Your task to perform on an android device: turn on the 24-hour format for clock Image 0: 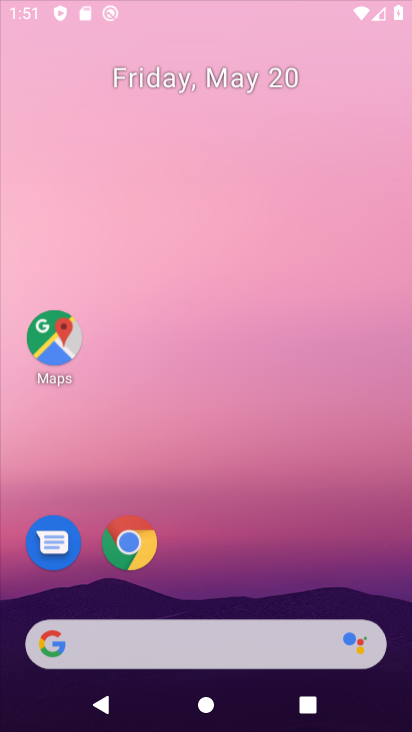
Step 0: click (333, 67)
Your task to perform on an android device: turn on the 24-hour format for clock Image 1: 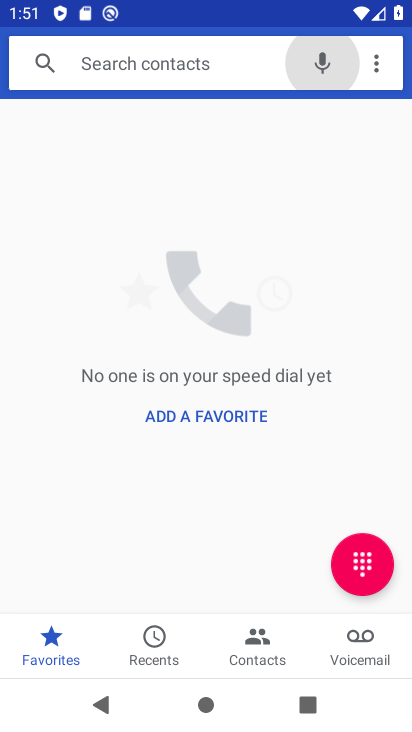
Step 1: click (147, 500)
Your task to perform on an android device: turn on the 24-hour format for clock Image 2: 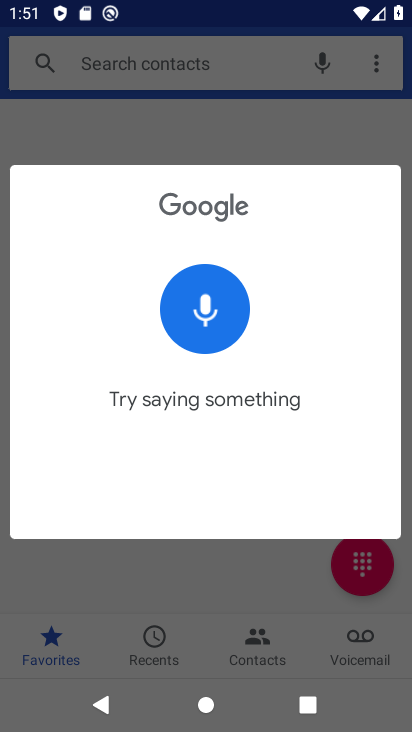
Step 2: press back button
Your task to perform on an android device: turn on the 24-hour format for clock Image 3: 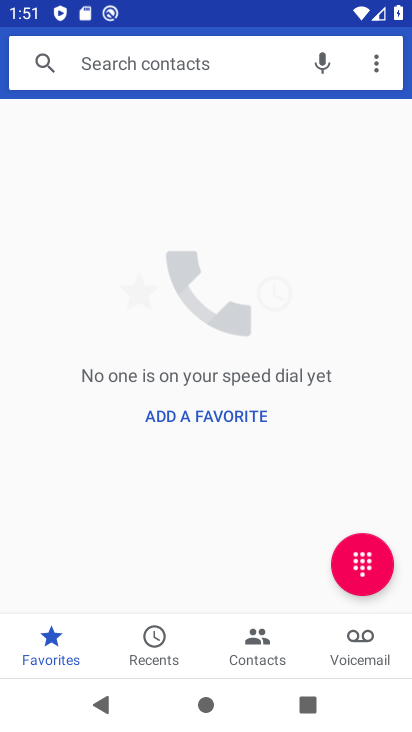
Step 3: press home button
Your task to perform on an android device: turn on the 24-hour format for clock Image 4: 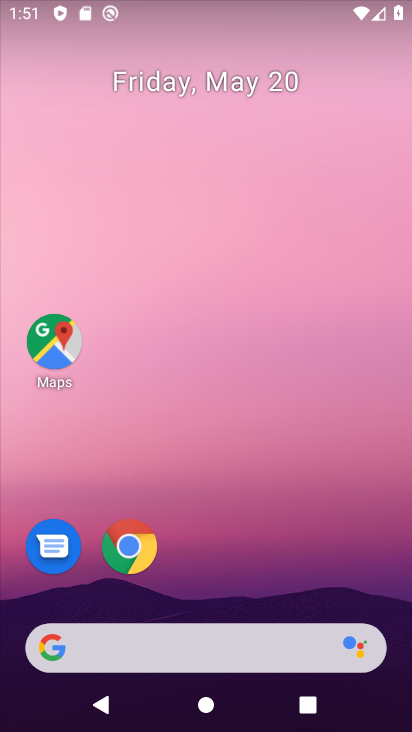
Step 4: drag from (187, 620) to (155, 98)
Your task to perform on an android device: turn on the 24-hour format for clock Image 5: 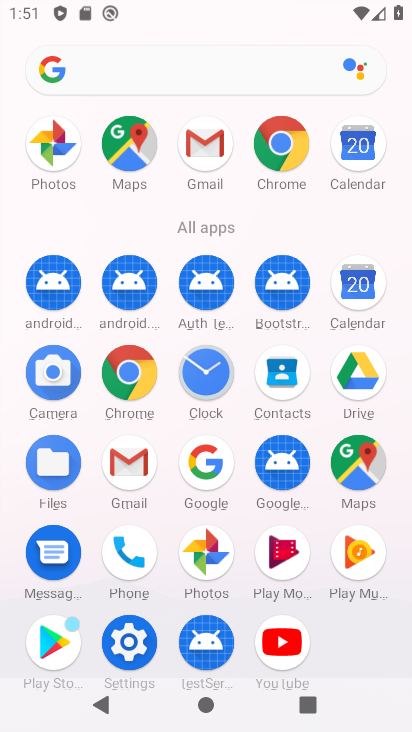
Step 5: click (136, 635)
Your task to perform on an android device: turn on the 24-hour format for clock Image 6: 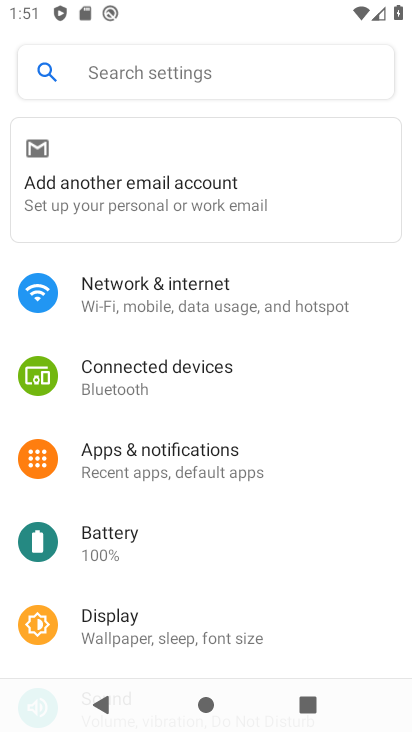
Step 6: press home button
Your task to perform on an android device: turn on the 24-hour format for clock Image 7: 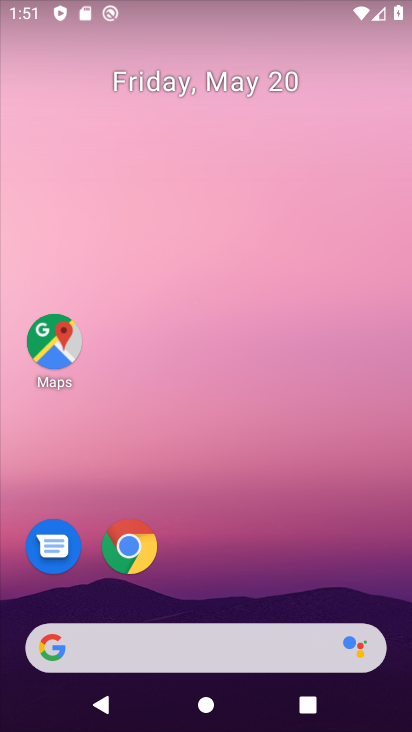
Step 7: drag from (195, 584) to (189, 8)
Your task to perform on an android device: turn on the 24-hour format for clock Image 8: 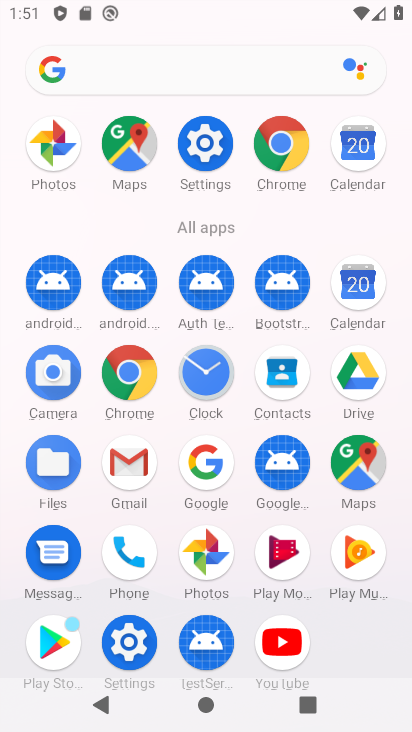
Step 8: click (199, 390)
Your task to perform on an android device: turn on the 24-hour format for clock Image 9: 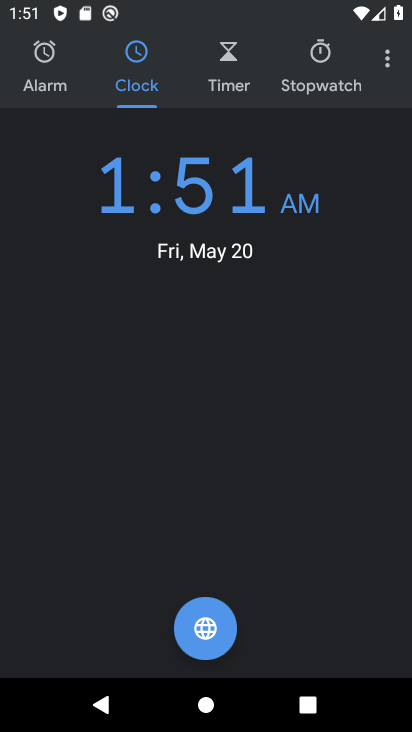
Step 9: click (382, 69)
Your task to perform on an android device: turn on the 24-hour format for clock Image 10: 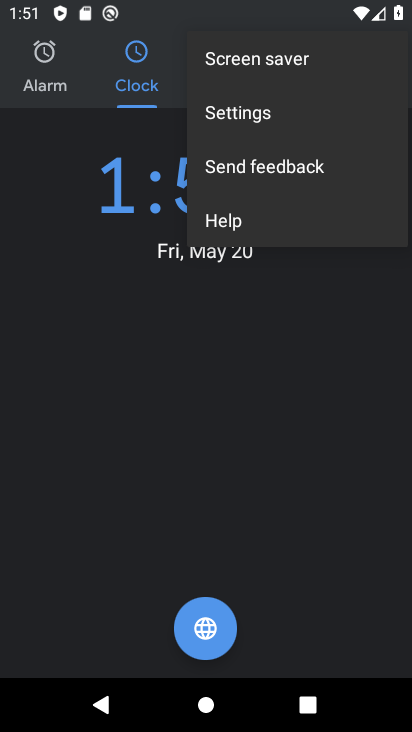
Step 10: click (230, 110)
Your task to perform on an android device: turn on the 24-hour format for clock Image 11: 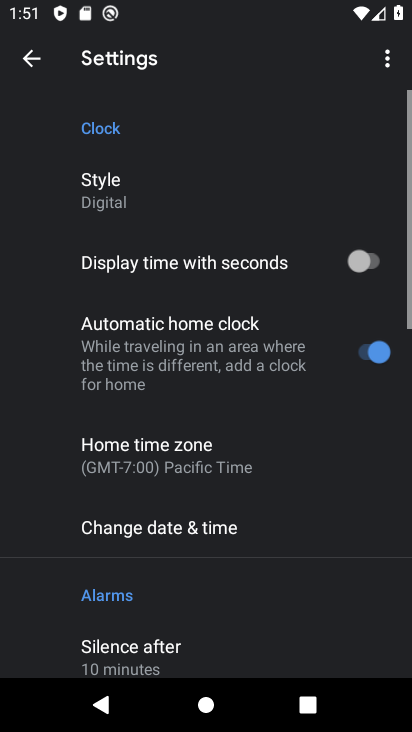
Step 11: click (156, 516)
Your task to perform on an android device: turn on the 24-hour format for clock Image 12: 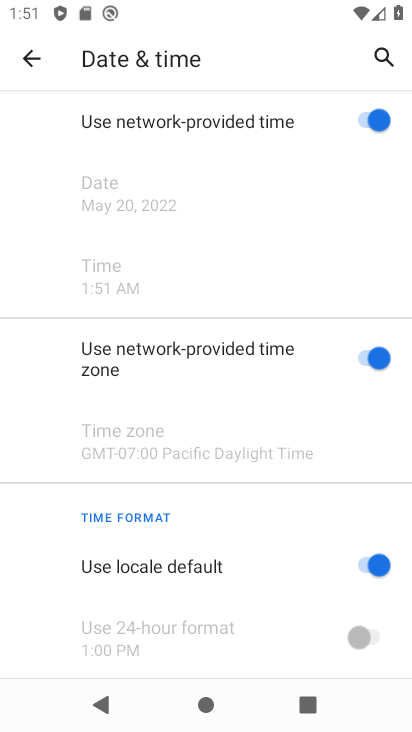
Step 12: drag from (174, 549) to (140, 281)
Your task to perform on an android device: turn on the 24-hour format for clock Image 13: 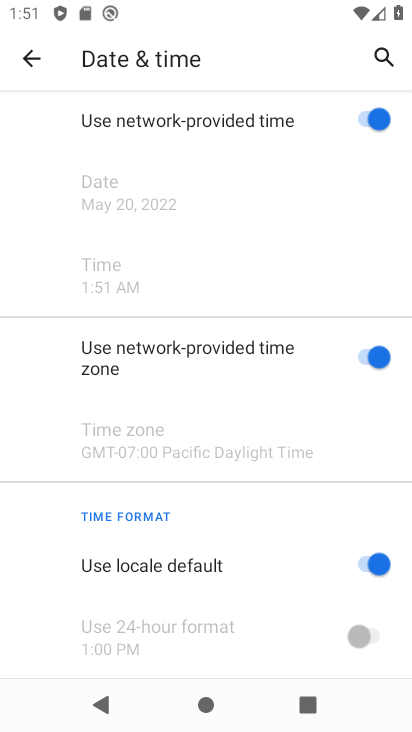
Step 13: click (381, 556)
Your task to perform on an android device: turn on the 24-hour format for clock Image 14: 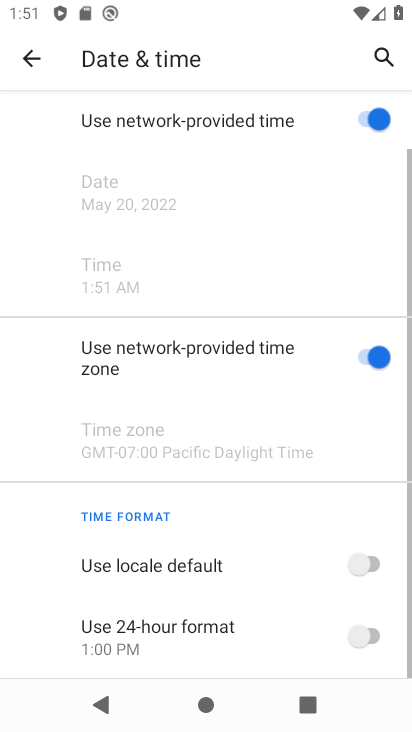
Step 14: click (371, 637)
Your task to perform on an android device: turn on the 24-hour format for clock Image 15: 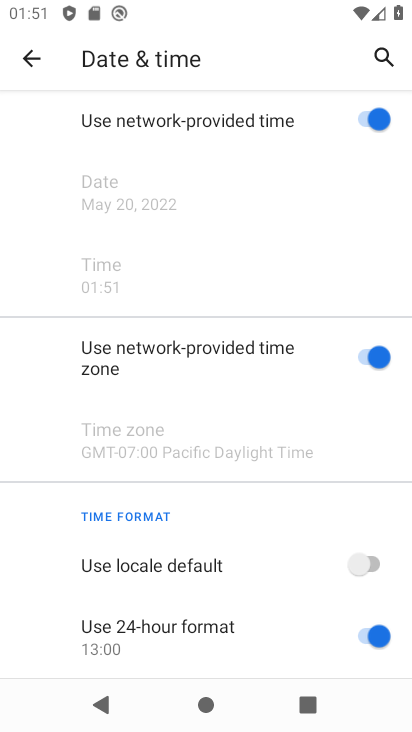
Step 15: task complete